Your task to perform on an android device: uninstall "VLC for Android" Image 0: 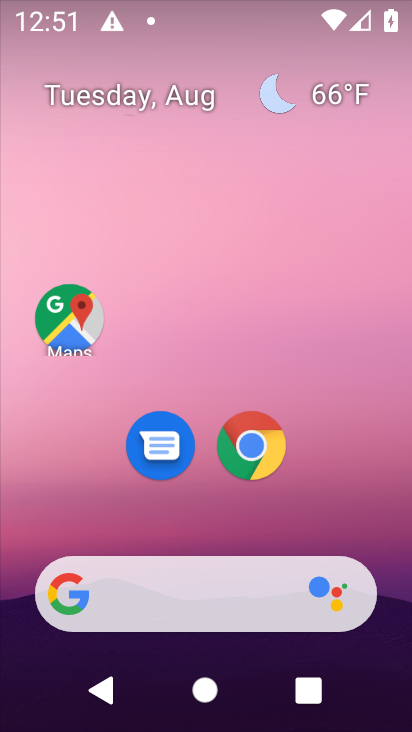
Step 0: drag from (345, 534) to (281, 259)
Your task to perform on an android device: uninstall "VLC for Android" Image 1: 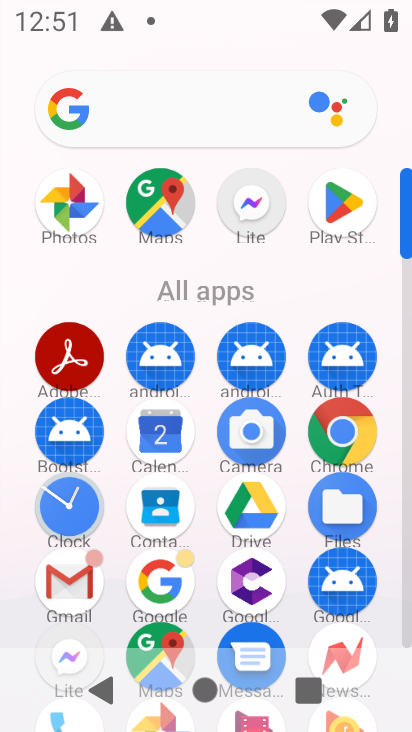
Step 1: click (341, 184)
Your task to perform on an android device: uninstall "VLC for Android" Image 2: 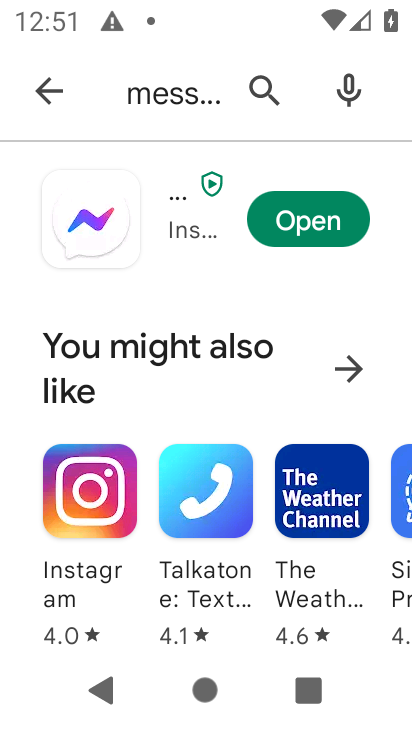
Step 2: click (269, 92)
Your task to perform on an android device: uninstall "VLC for Android" Image 3: 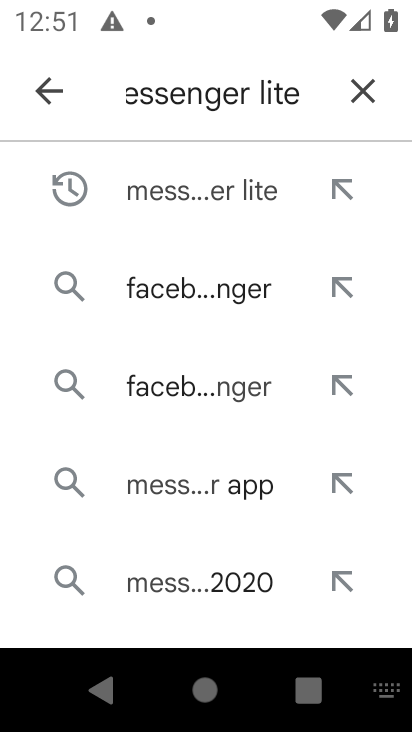
Step 3: click (364, 96)
Your task to perform on an android device: uninstall "VLC for Android" Image 4: 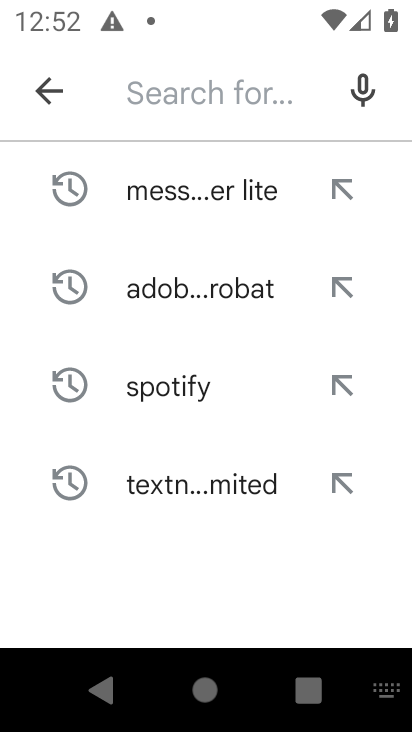
Step 4: type "vlc"
Your task to perform on an android device: uninstall "VLC for Android" Image 5: 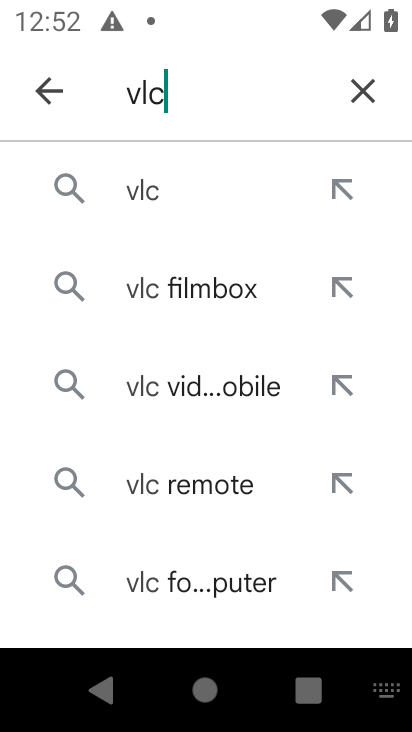
Step 5: click (148, 190)
Your task to perform on an android device: uninstall "VLC for Android" Image 6: 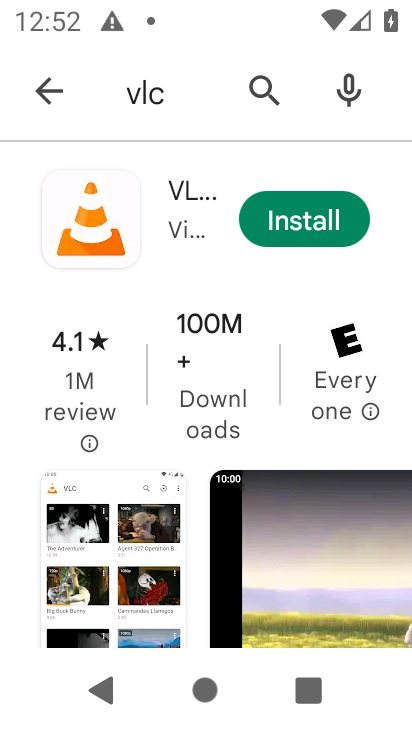
Step 6: task complete